Your task to perform on an android device: change text size in settings app Image 0: 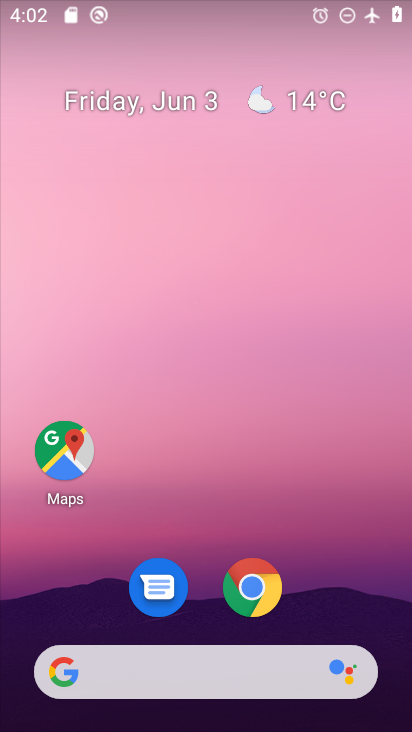
Step 0: drag from (248, 718) to (198, 112)
Your task to perform on an android device: change text size in settings app Image 1: 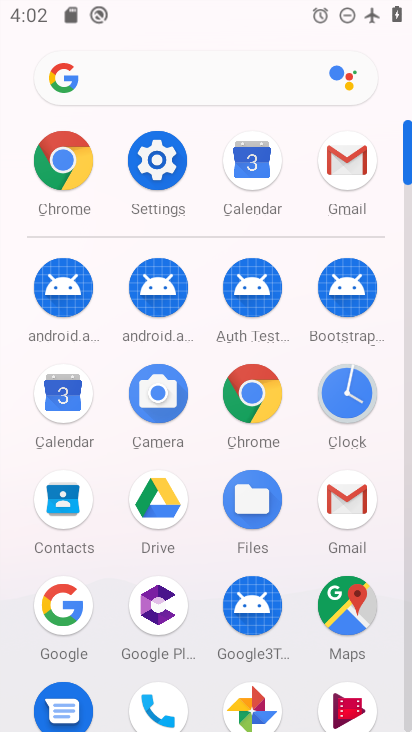
Step 1: click (165, 160)
Your task to perform on an android device: change text size in settings app Image 2: 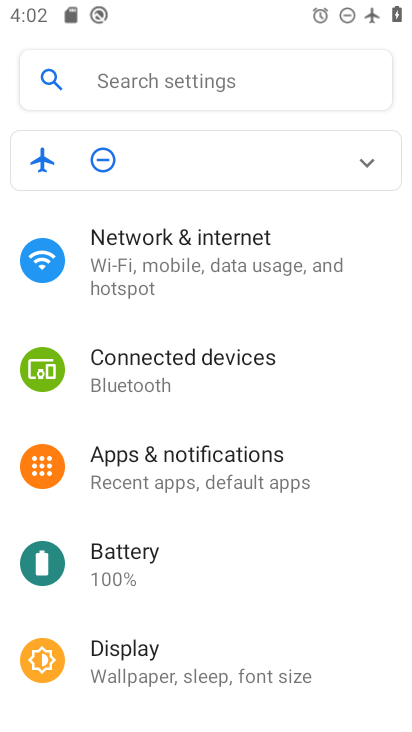
Step 2: drag from (181, 686) to (147, 458)
Your task to perform on an android device: change text size in settings app Image 3: 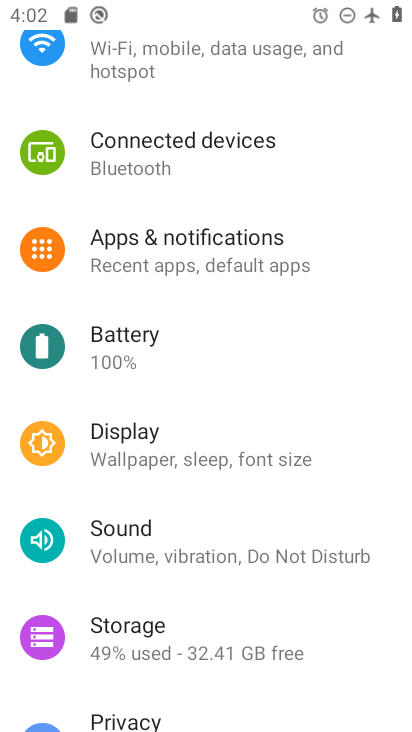
Step 3: click (217, 455)
Your task to perform on an android device: change text size in settings app Image 4: 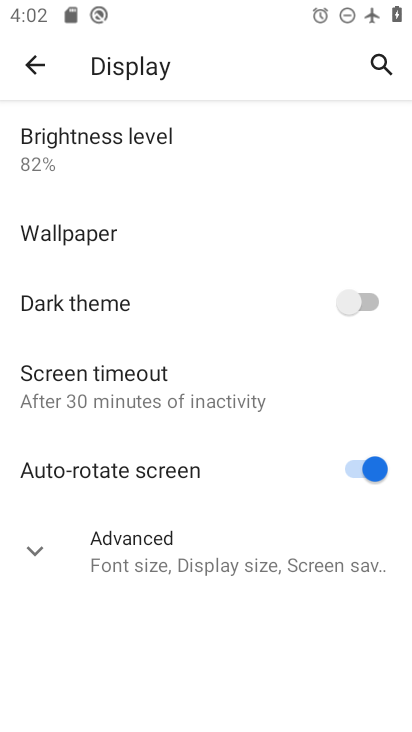
Step 4: click (204, 555)
Your task to perform on an android device: change text size in settings app Image 5: 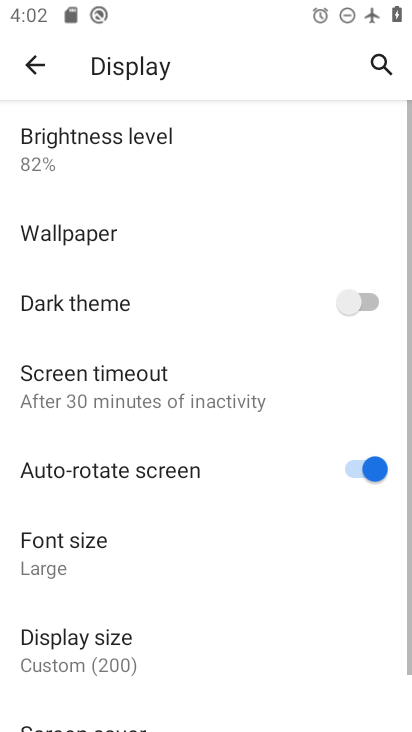
Step 5: click (54, 547)
Your task to perform on an android device: change text size in settings app Image 6: 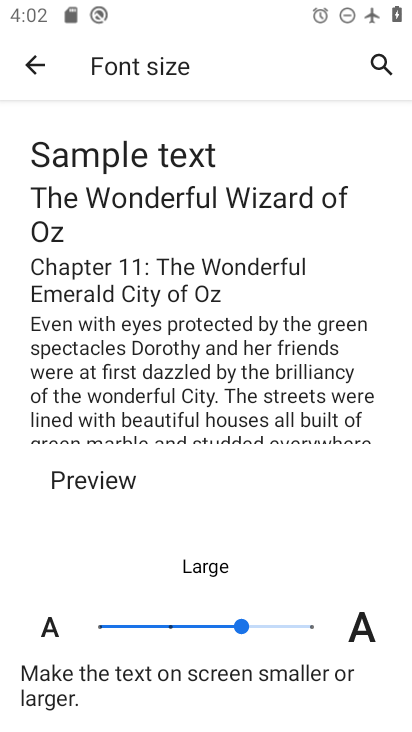
Step 6: click (167, 621)
Your task to perform on an android device: change text size in settings app Image 7: 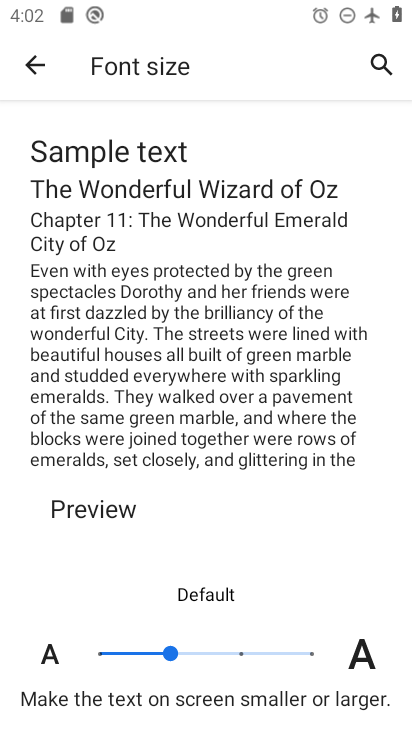
Step 7: task complete